Your task to perform on an android device: check battery use Image 0: 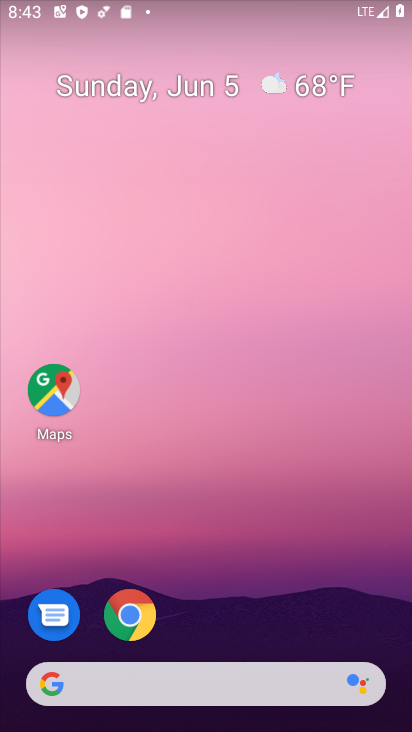
Step 0: drag from (196, 674) to (234, 276)
Your task to perform on an android device: check battery use Image 1: 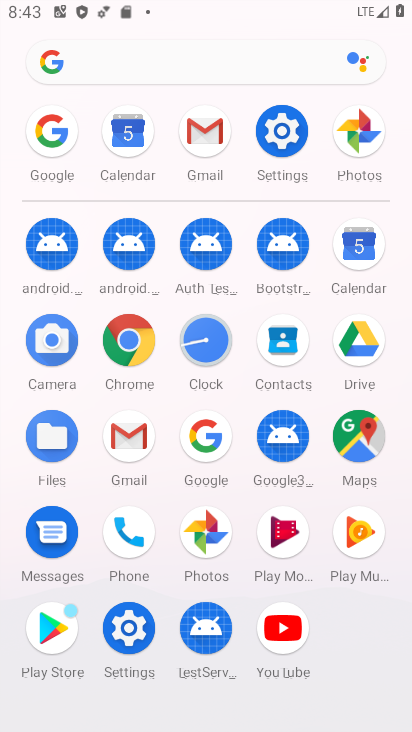
Step 1: click (287, 137)
Your task to perform on an android device: check battery use Image 2: 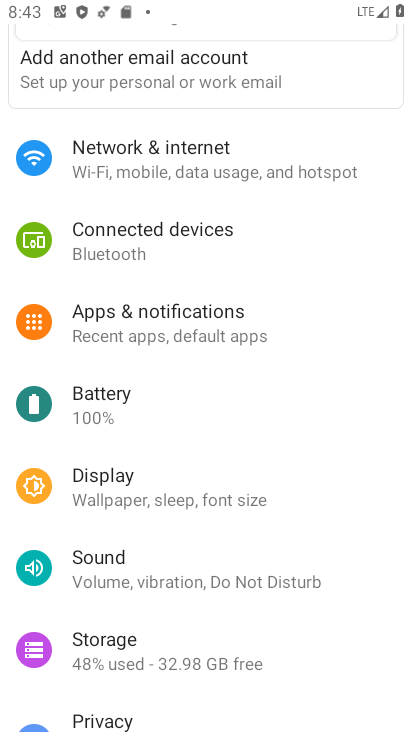
Step 2: click (129, 400)
Your task to perform on an android device: check battery use Image 3: 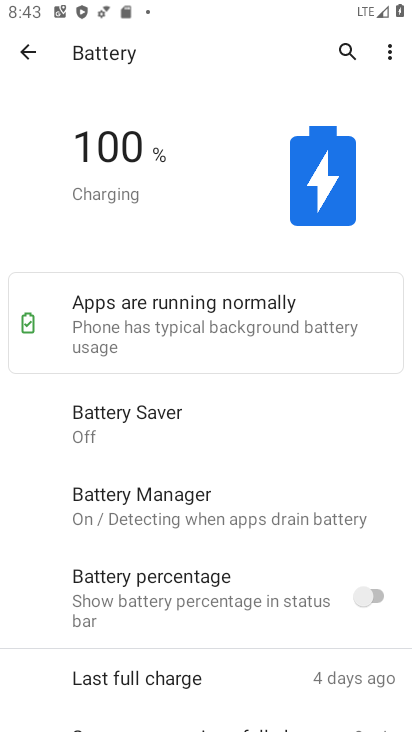
Step 3: click (382, 45)
Your task to perform on an android device: check battery use Image 4: 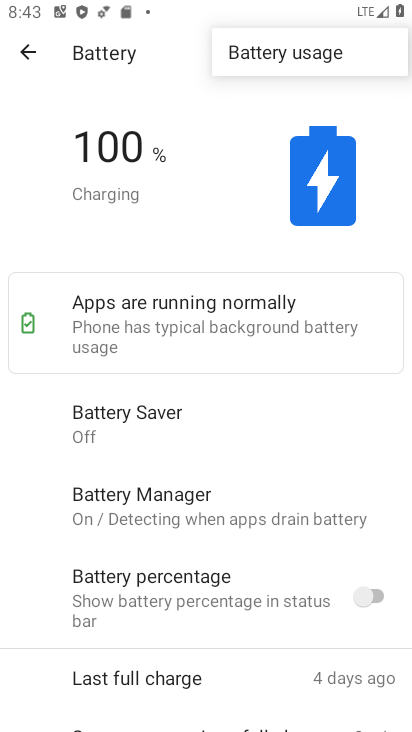
Step 4: click (320, 53)
Your task to perform on an android device: check battery use Image 5: 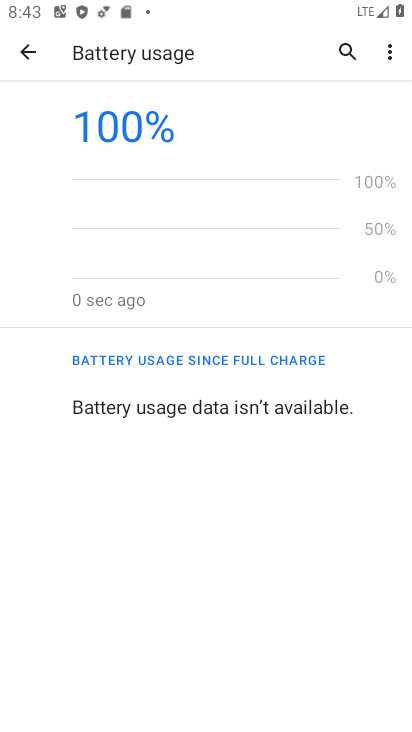
Step 5: task complete